Your task to perform on an android device: Go to sound settings Image 0: 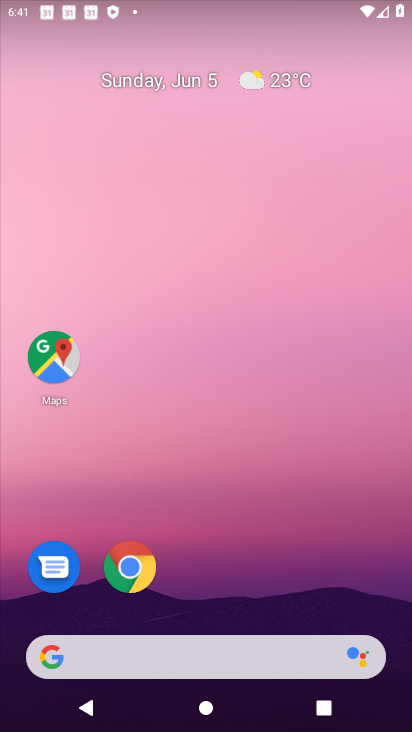
Step 0: drag from (378, 501) to (302, 7)
Your task to perform on an android device: Go to sound settings Image 1: 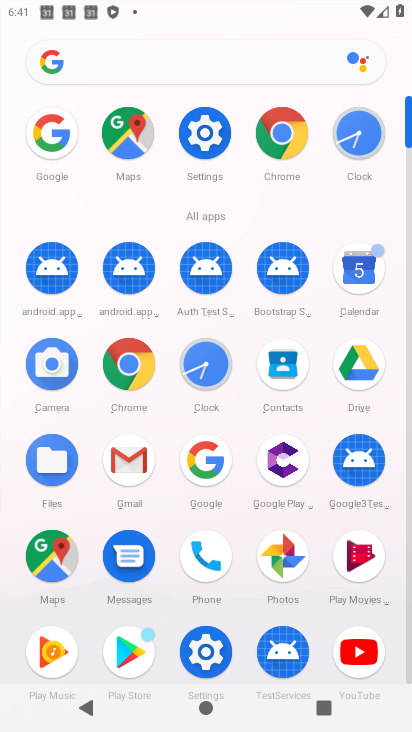
Step 1: click (203, 144)
Your task to perform on an android device: Go to sound settings Image 2: 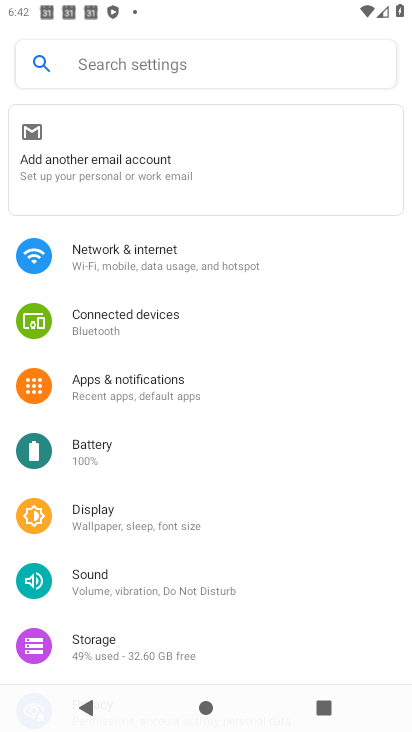
Step 2: click (120, 581)
Your task to perform on an android device: Go to sound settings Image 3: 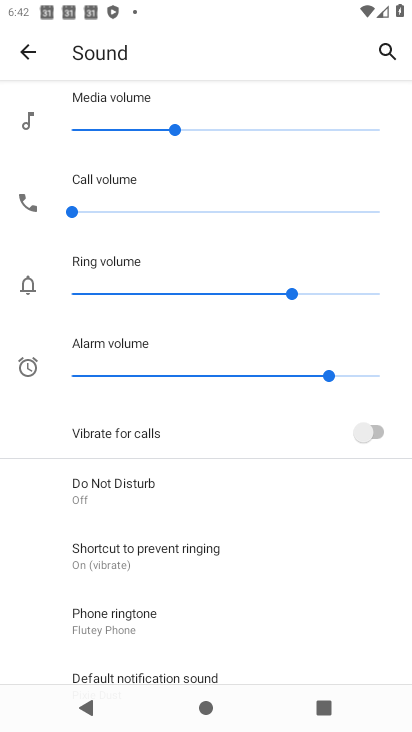
Step 3: task complete